Your task to perform on an android device: change notifications settings Image 0: 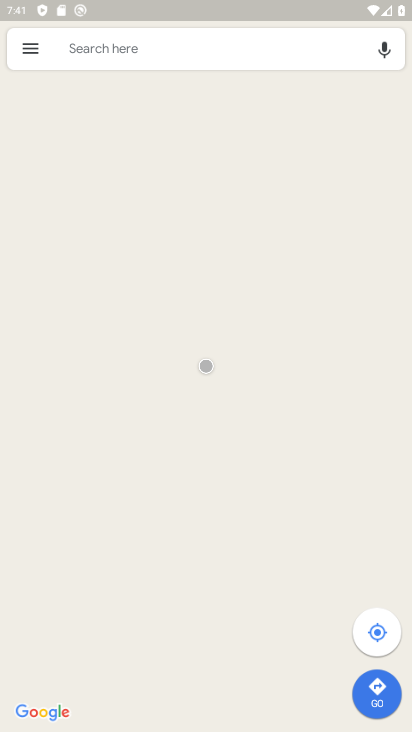
Step 0: press home button
Your task to perform on an android device: change notifications settings Image 1: 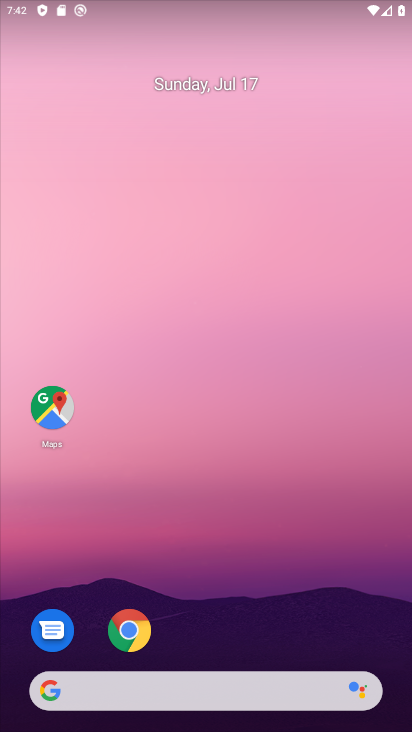
Step 1: drag from (237, 645) to (394, 33)
Your task to perform on an android device: change notifications settings Image 2: 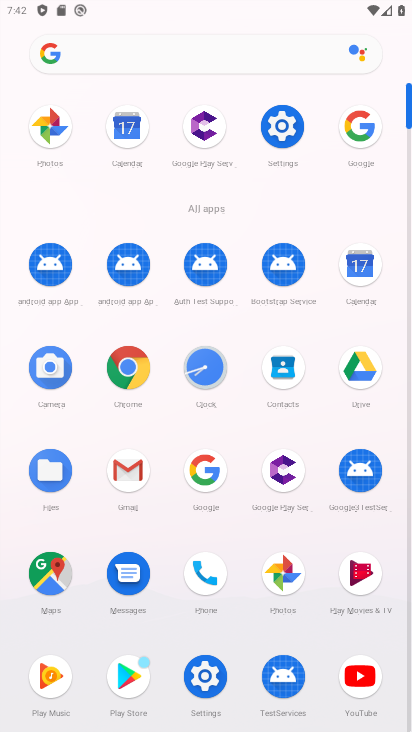
Step 2: click (274, 117)
Your task to perform on an android device: change notifications settings Image 3: 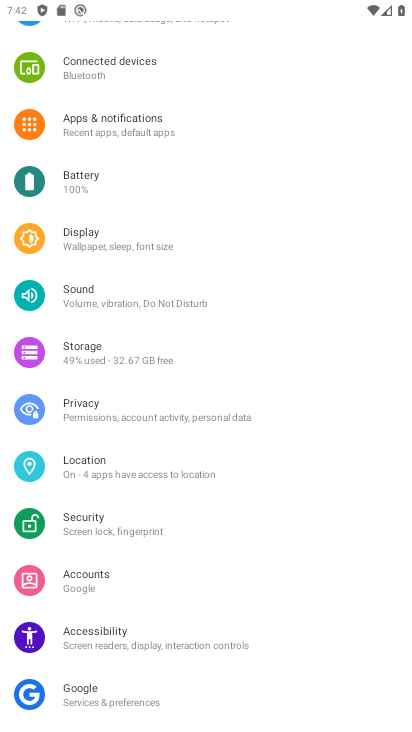
Step 3: click (122, 116)
Your task to perform on an android device: change notifications settings Image 4: 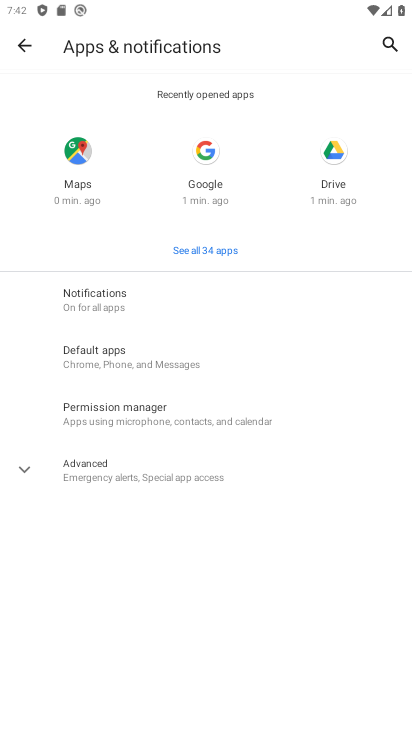
Step 4: click (127, 300)
Your task to perform on an android device: change notifications settings Image 5: 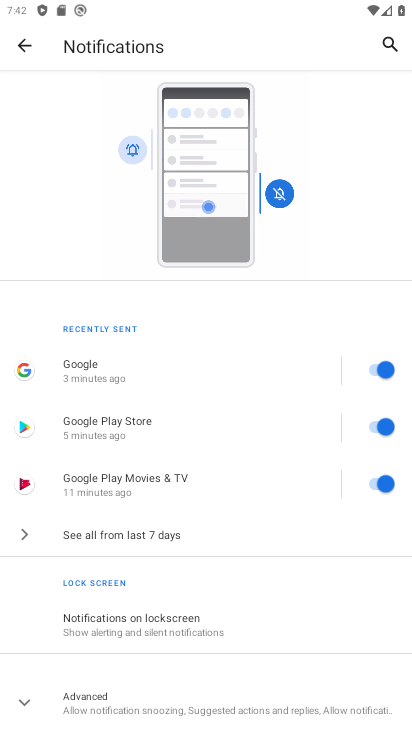
Step 5: click (378, 372)
Your task to perform on an android device: change notifications settings Image 6: 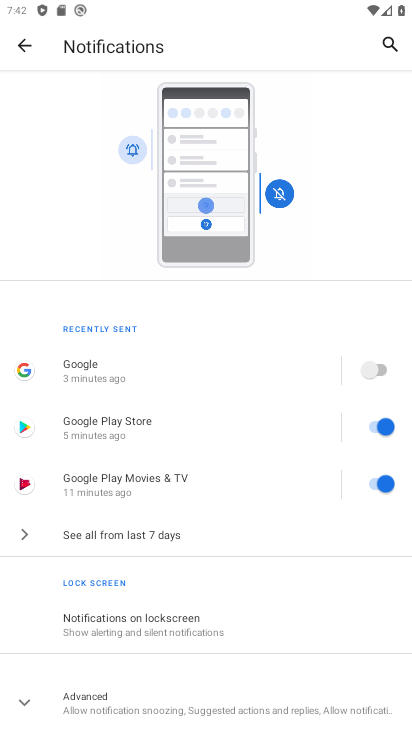
Step 6: task complete